Your task to perform on an android device: Go to battery settings Image 0: 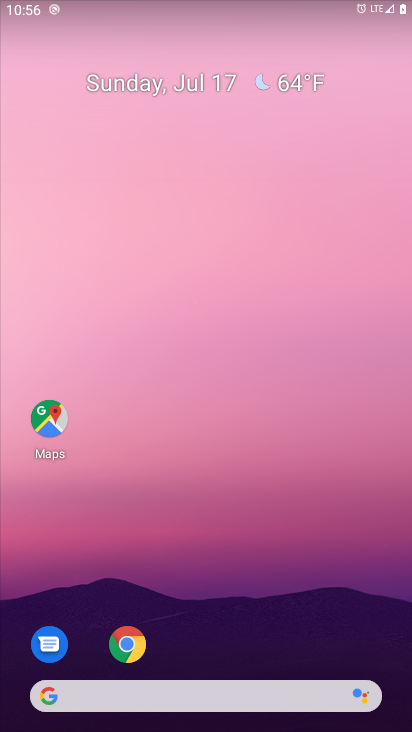
Step 0: press home button
Your task to perform on an android device: Go to battery settings Image 1: 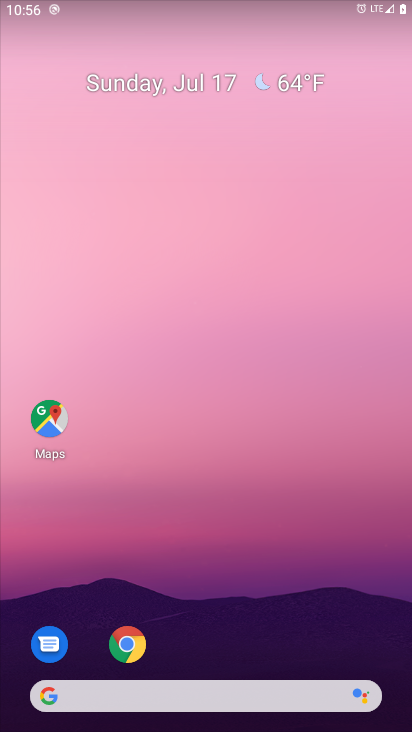
Step 1: drag from (288, 607) to (303, 109)
Your task to perform on an android device: Go to battery settings Image 2: 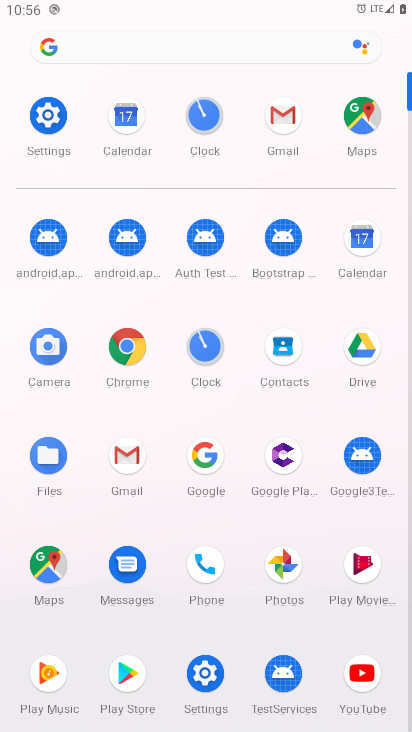
Step 2: click (40, 126)
Your task to perform on an android device: Go to battery settings Image 3: 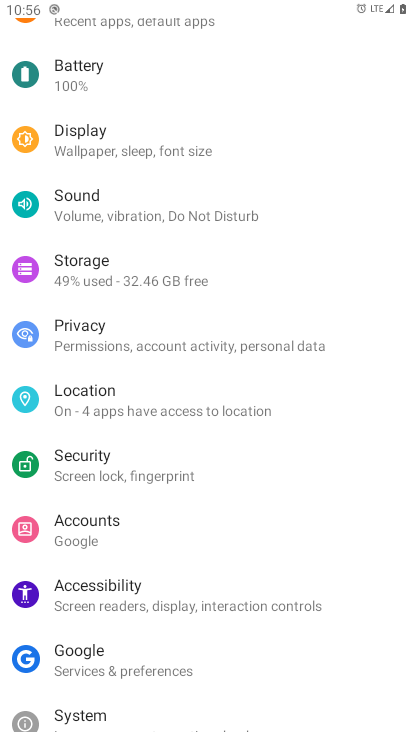
Step 3: click (123, 89)
Your task to perform on an android device: Go to battery settings Image 4: 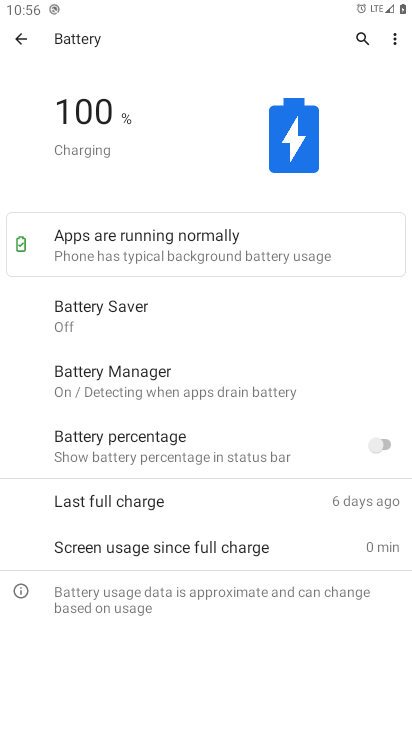
Step 4: task complete